Your task to perform on an android device: turn on sleep mode Image 0: 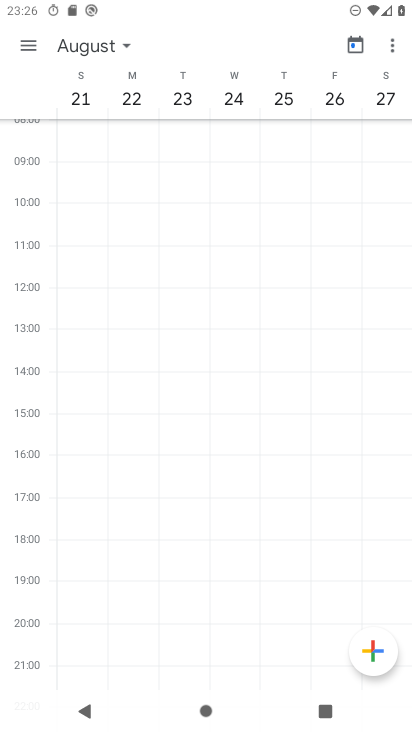
Step 0: press home button
Your task to perform on an android device: turn on sleep mode Image 1: 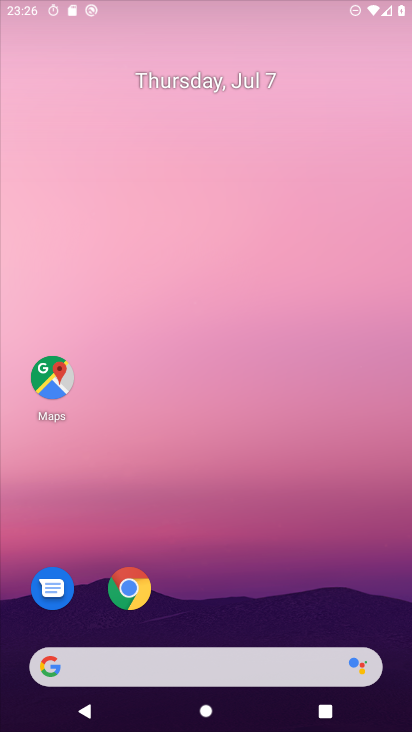
Step 1: drag from (263, 402) to (236, 14)
Your task to perform on an android device: turn on sleep mode Image 2: 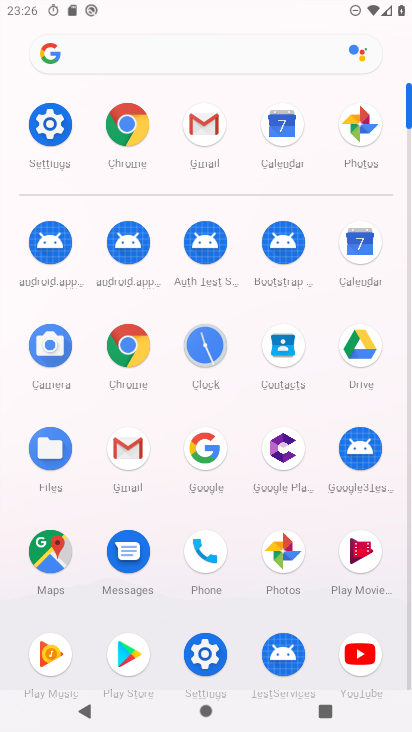
Step 2: click (62, 132)
Your task to perform on an android device: turn on sleep mode Image 3: 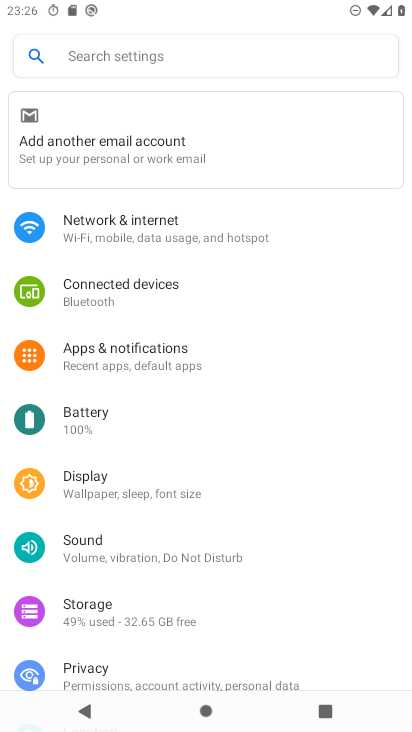
Step 3: click (116, 480)
Your task to perform on an android device: turn on sleep mode Image 4: 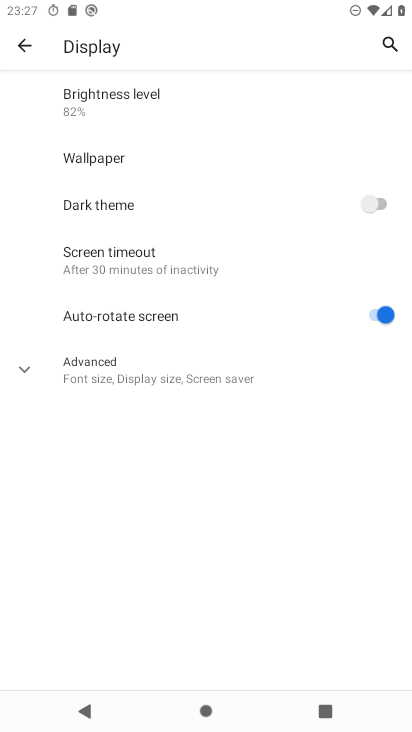
Step 4: click (121, 256)
Your task to perform on an android device: turn on sleep mode Image 5: 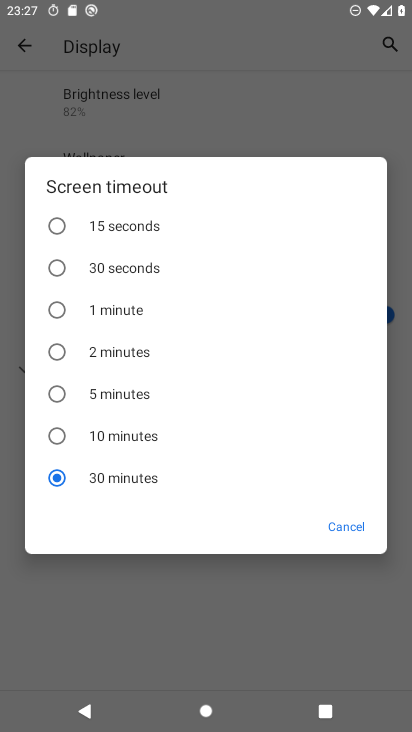
Step 5: task complete